Your task to perform on an android device: Go to Wikipedia Image 0: 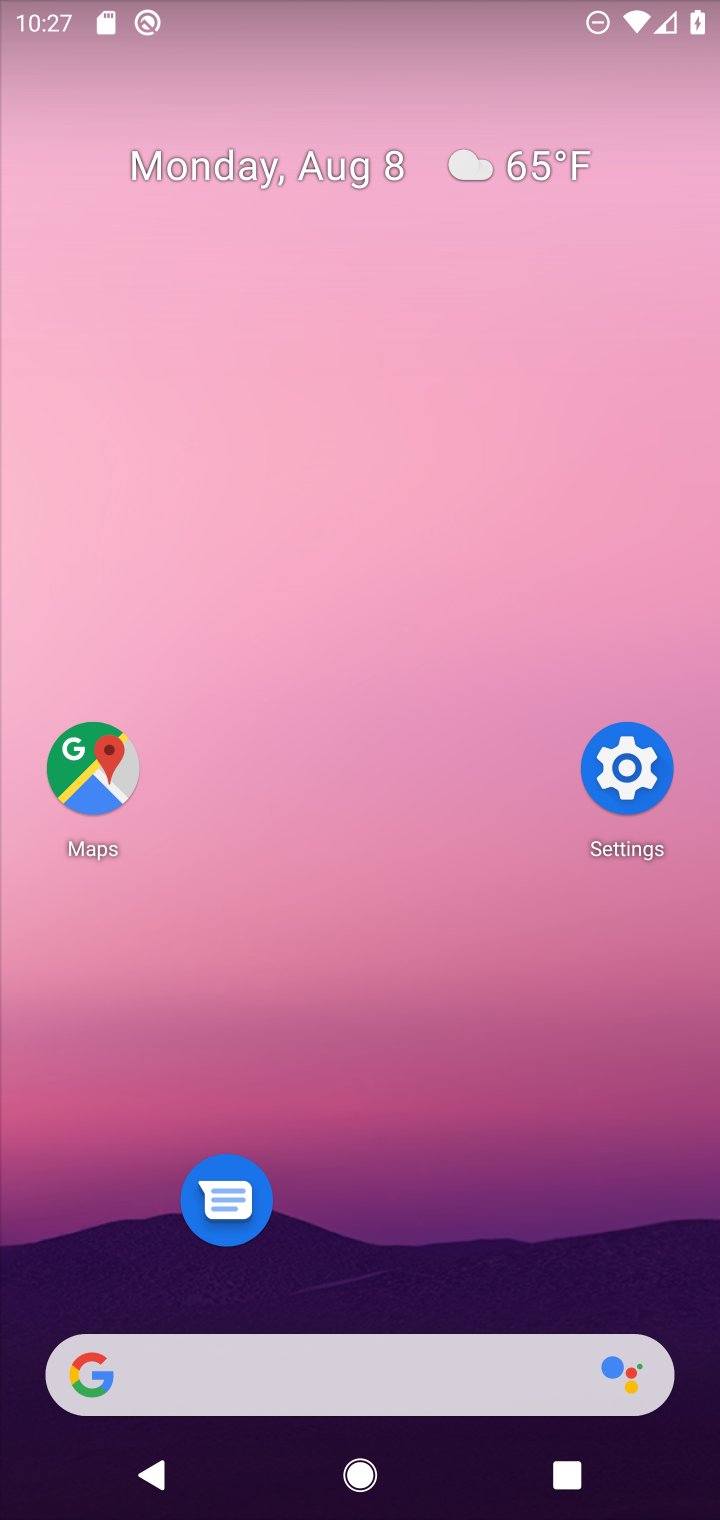
Step 0: drag from (322, 1352) to (526, 283)
Your task to perform on an android device: Go to Wikipedia Image 1: 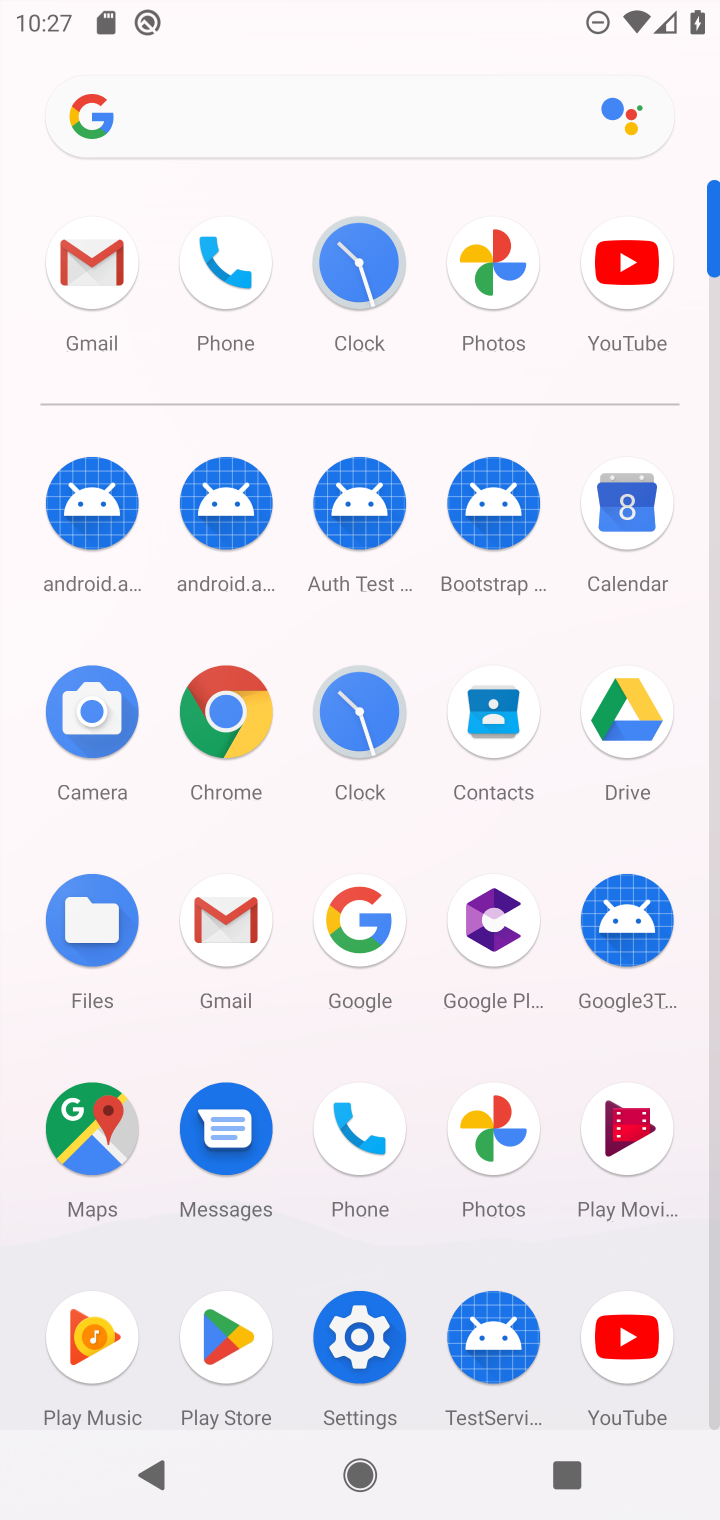
Step 1: drag from (228, 712) to (479, 1175)
Your task to perform on an android device: Go to Wikipedia Image 2: 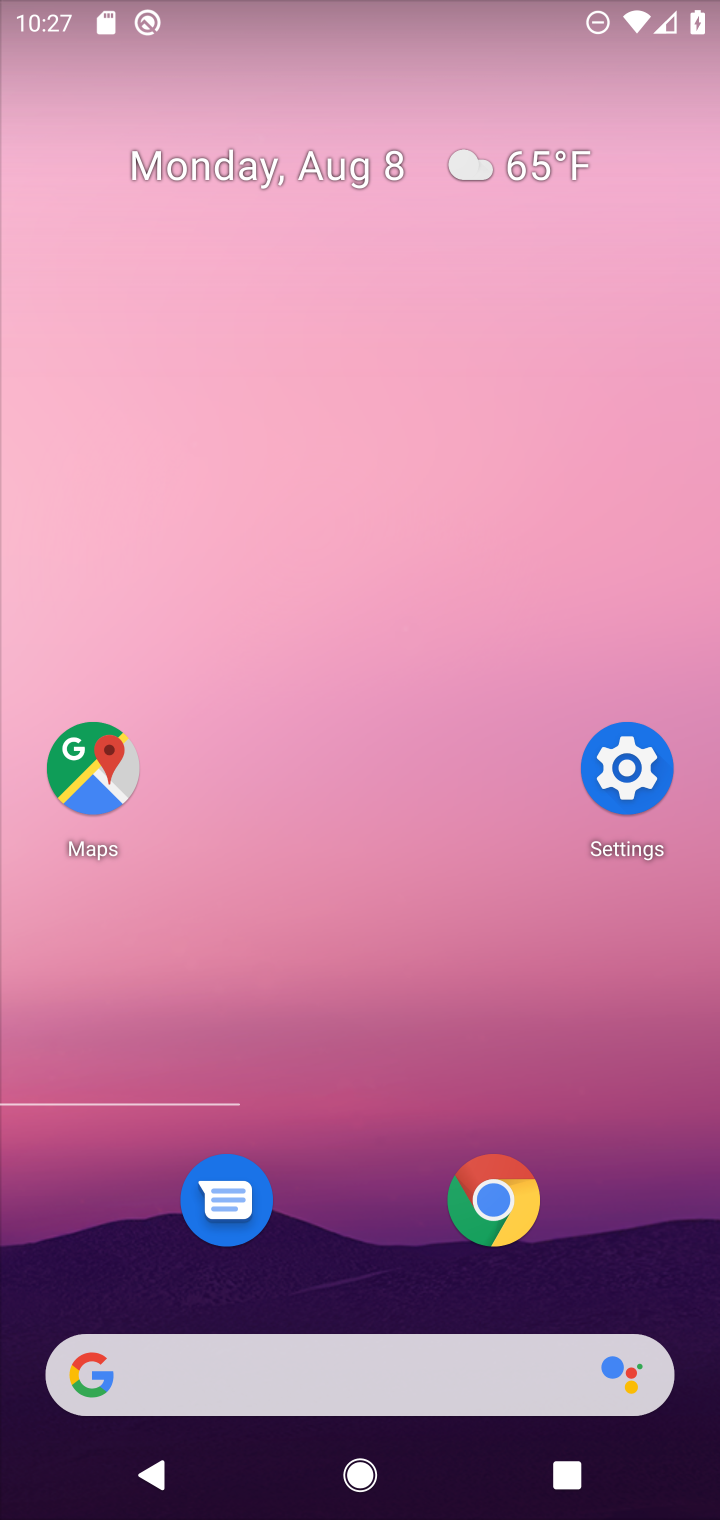
Step 2: click (493, 1191)
Your task to perform on an android device: Go to Wikipedia Image 3: 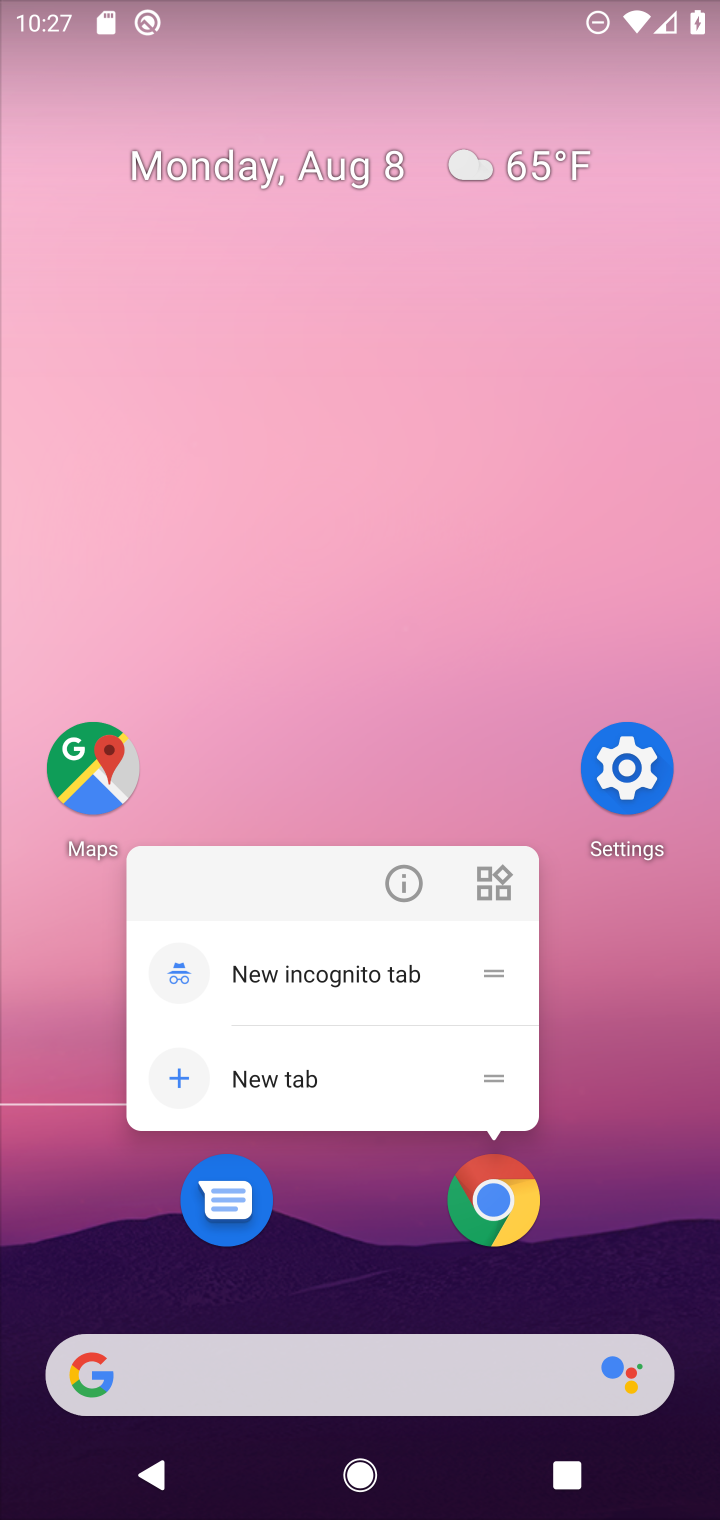
Step 3: click (493, 1199)
Your task to perform on an android device: Go to Wikipedia Image 4: 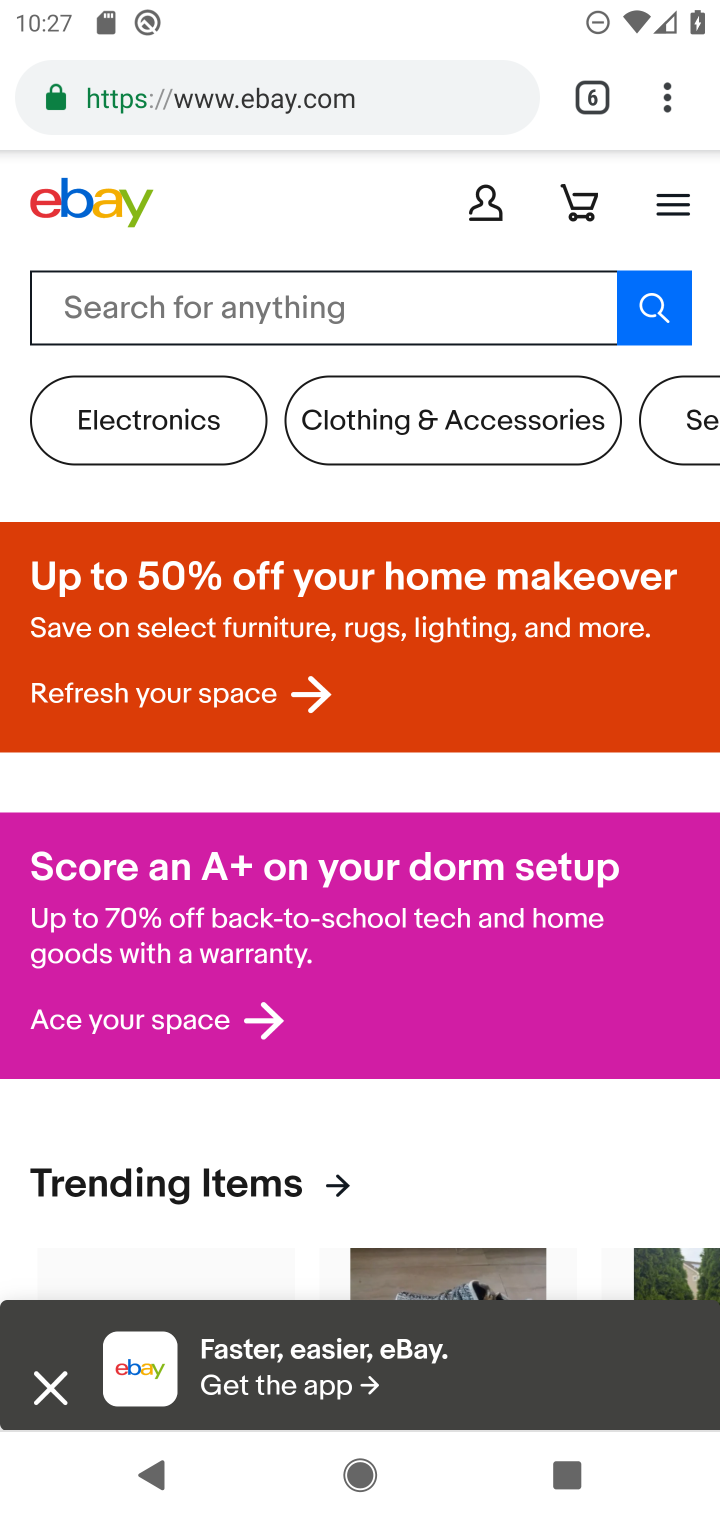
Step 4: drag from (658, 101) to (391, 311)
Your task to perform on an android device: Go to Wikipedia Image 5: 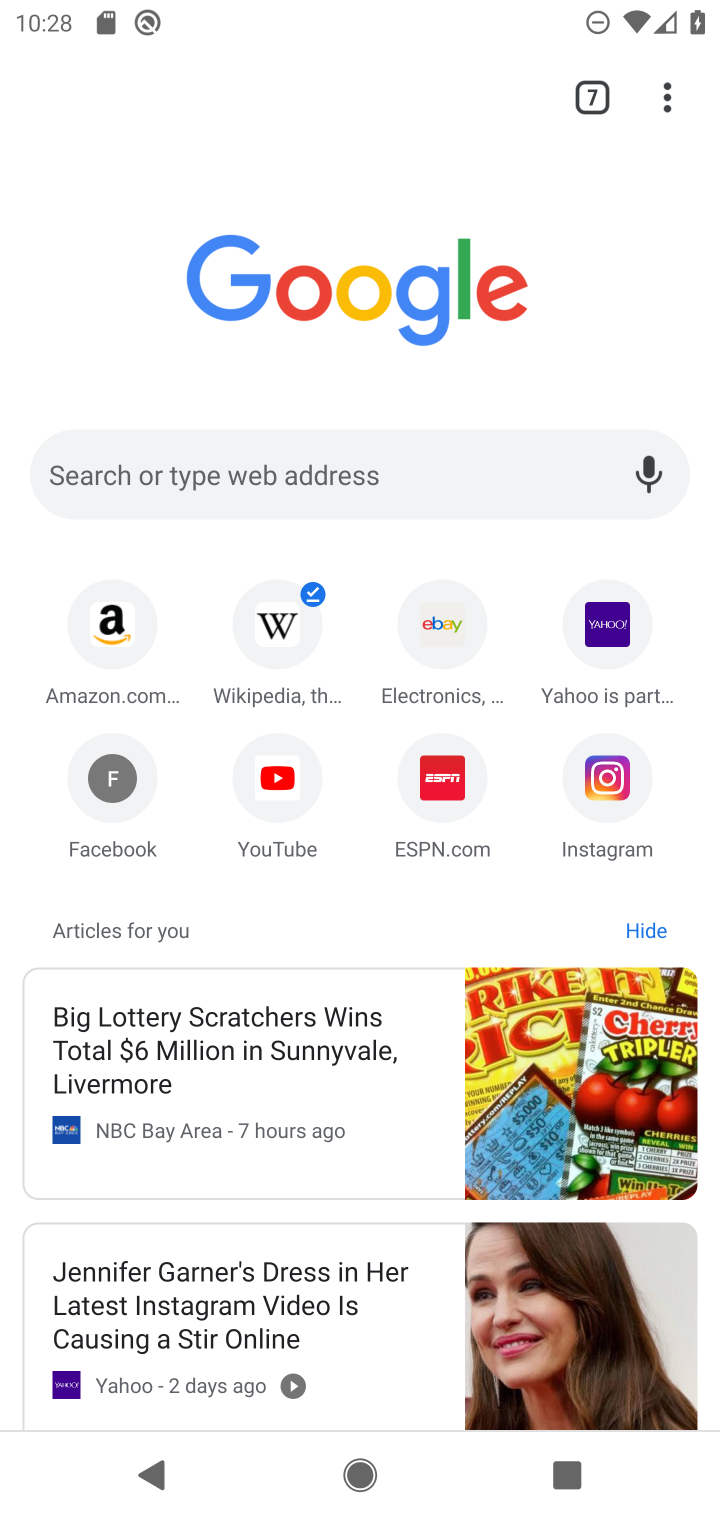
Step 5: click (278, 629)
Your task to perform on an android device: Go to Wikipedia Image 6: 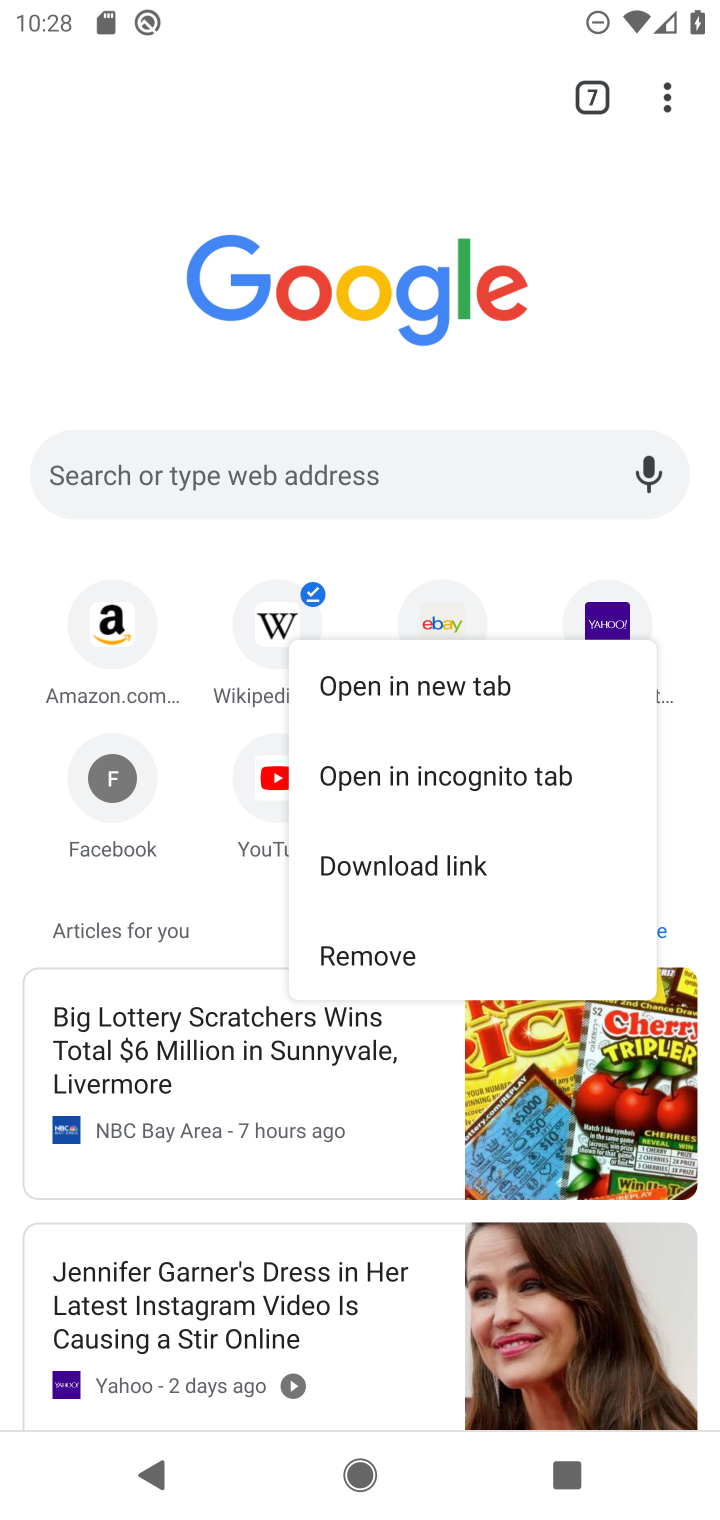
Step 6: click (278, 635)
Your task to perform on an android device: Go to Wikipedia Image 7: 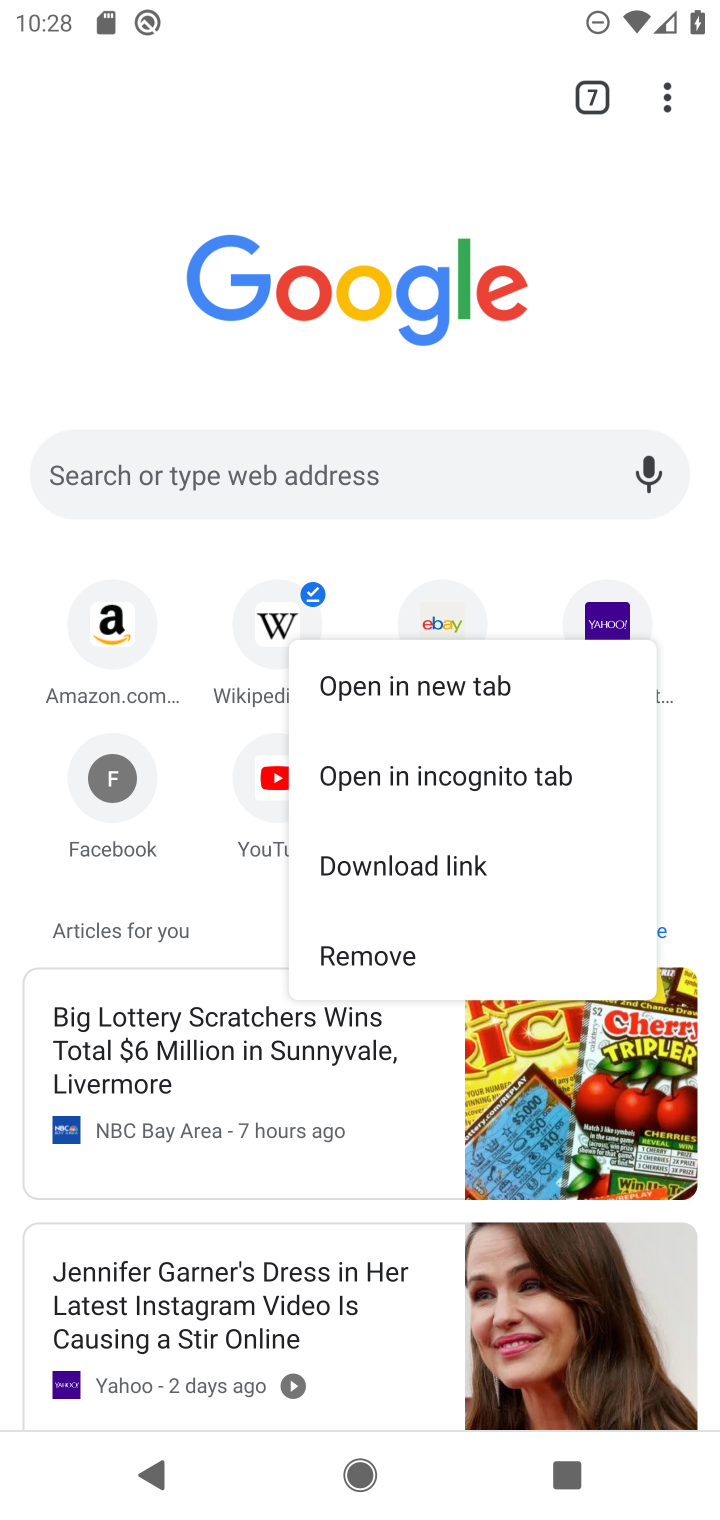
Step 7: click (278, 635)
Your task to perform on an android device: Go to Wikipedia Image 8: 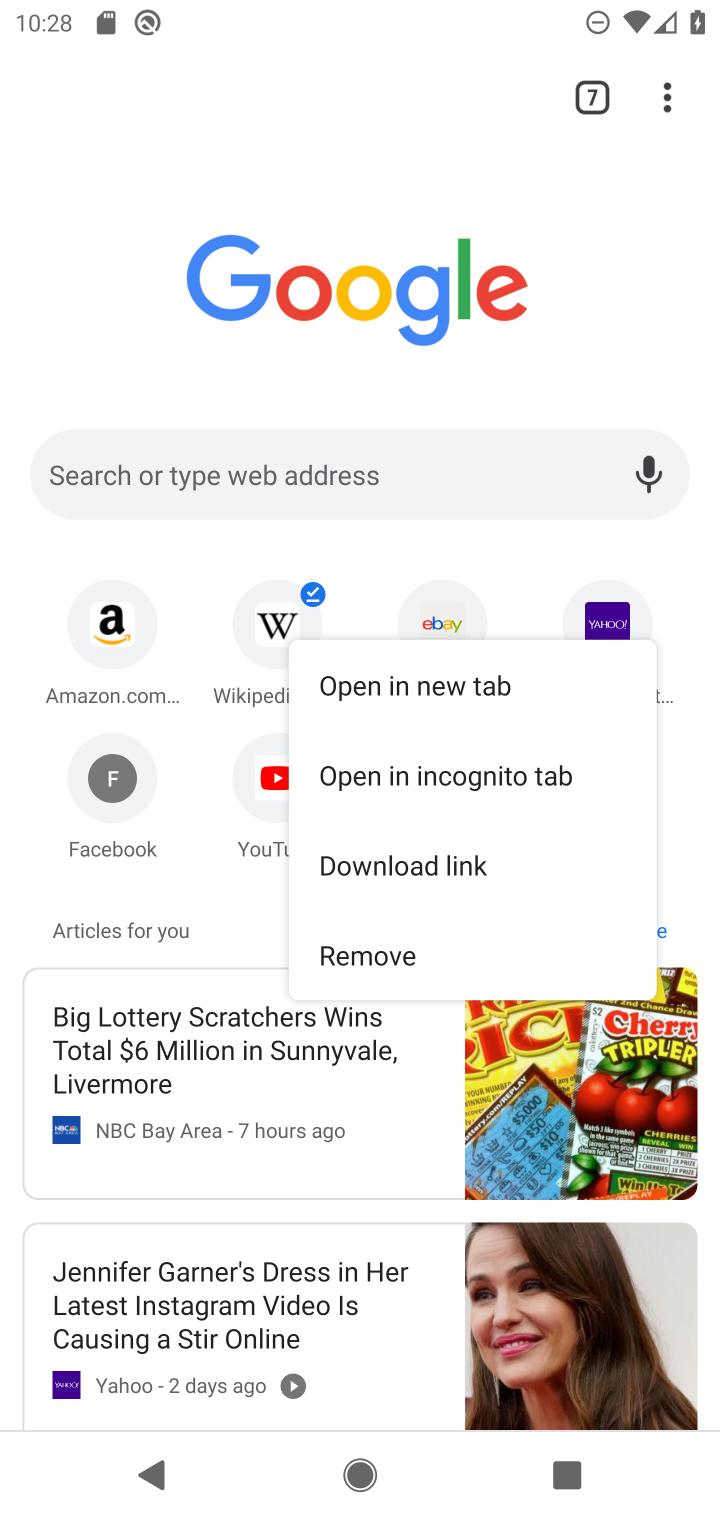
Step 8: click (265, 627)
Your task to perform on an android device: Go to Wikipedia Image 9: 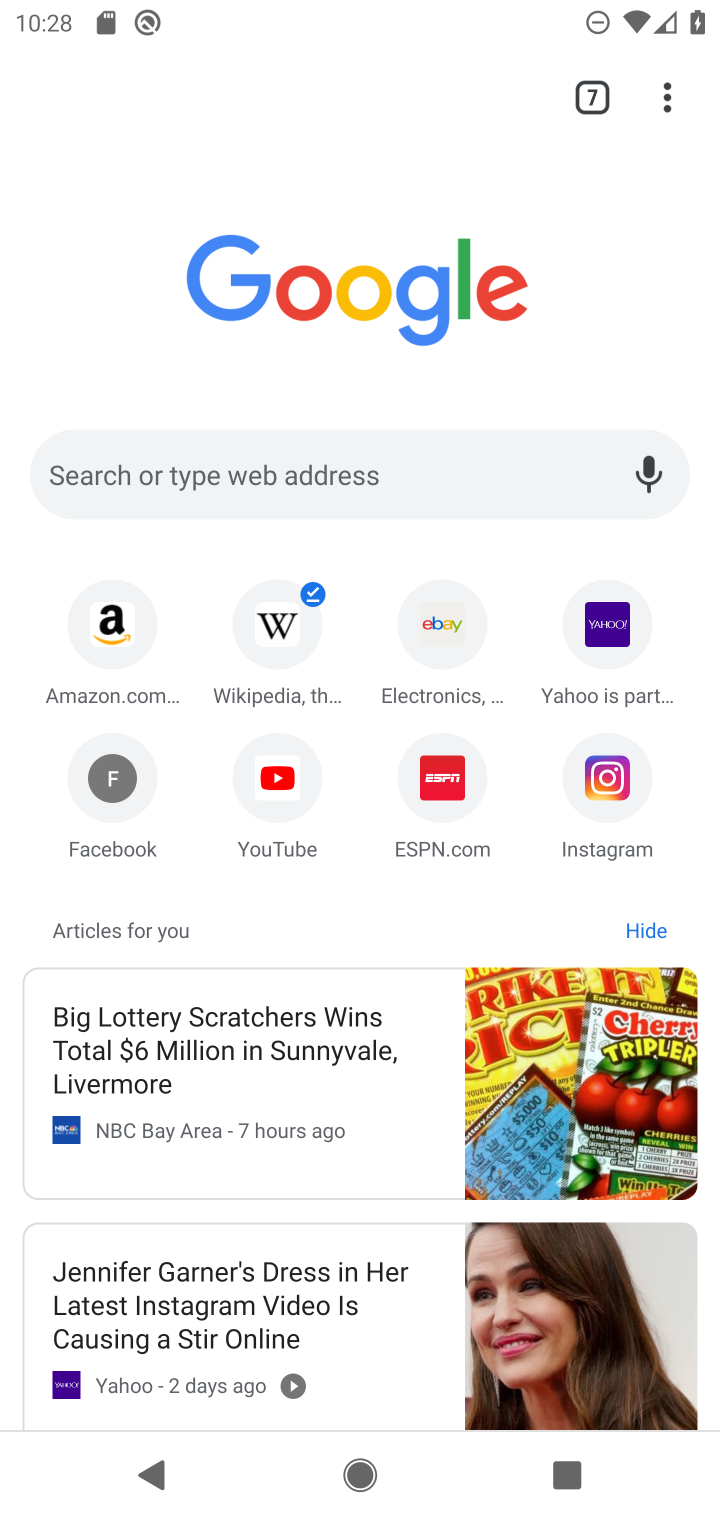
Step 9: click (265, 625)
Your task to perform on an android device: Go to Wikipedia Image 10: 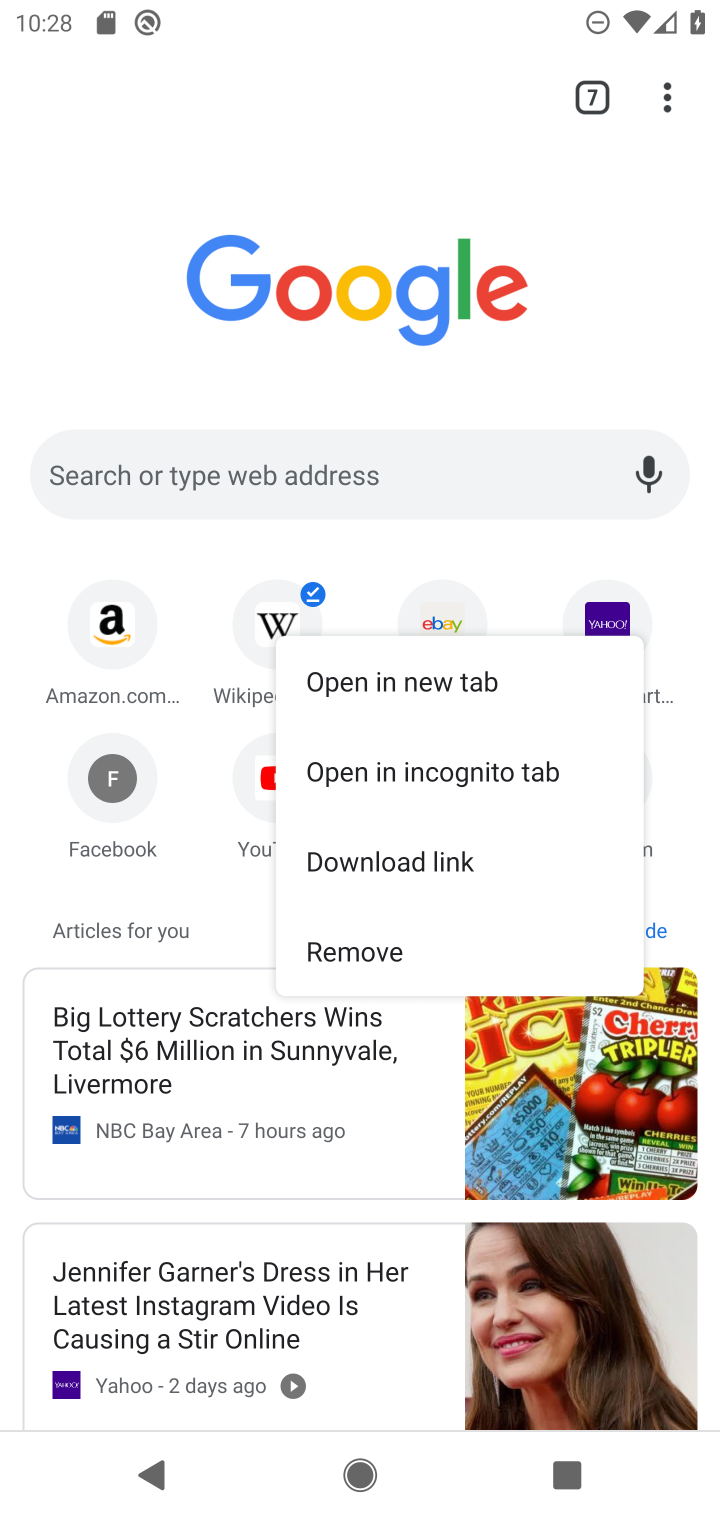
Step 10: click (271, 618)
Your task to perform on an android device: Go to Wikipedia Image 11: 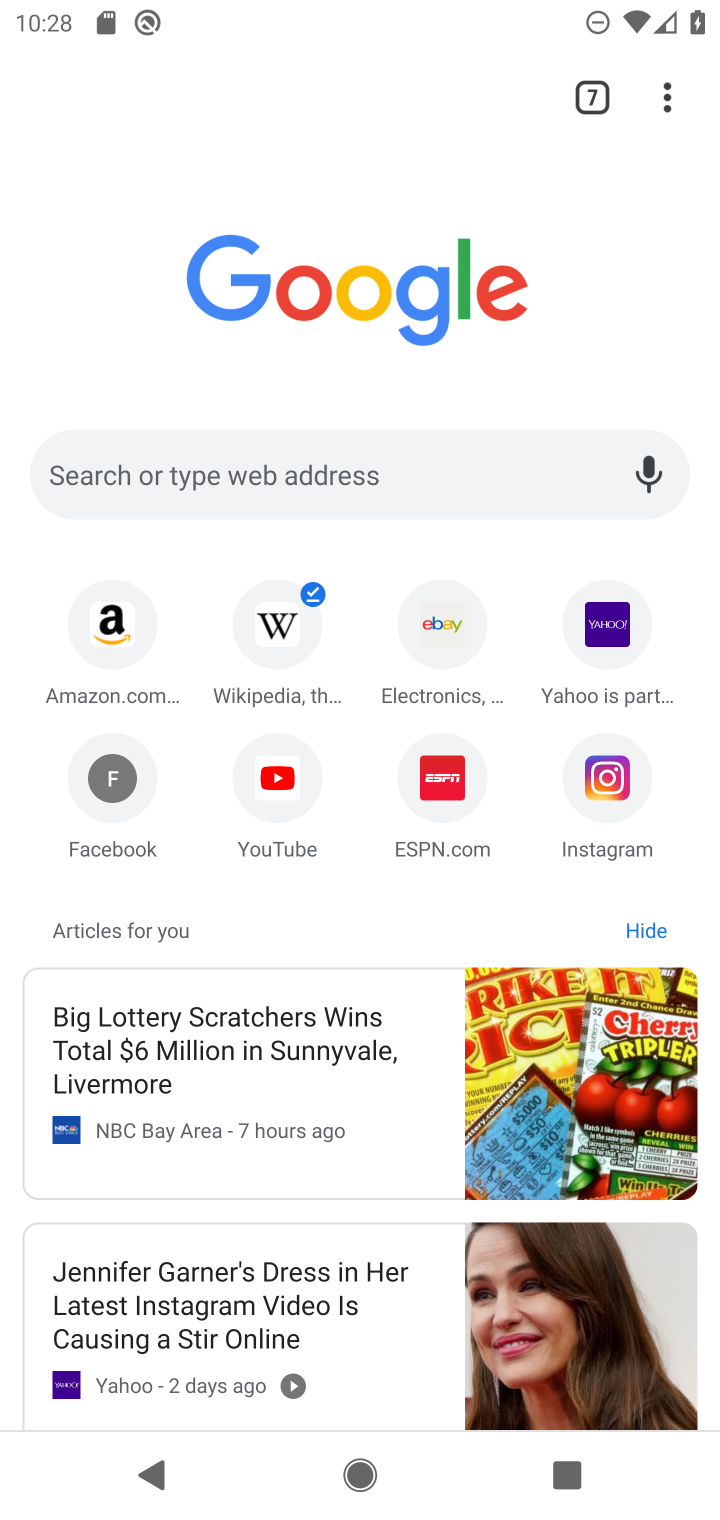
Step 11: click (271, 623)
Your task to perform on an android device: Go to Wikipedia Image 12: 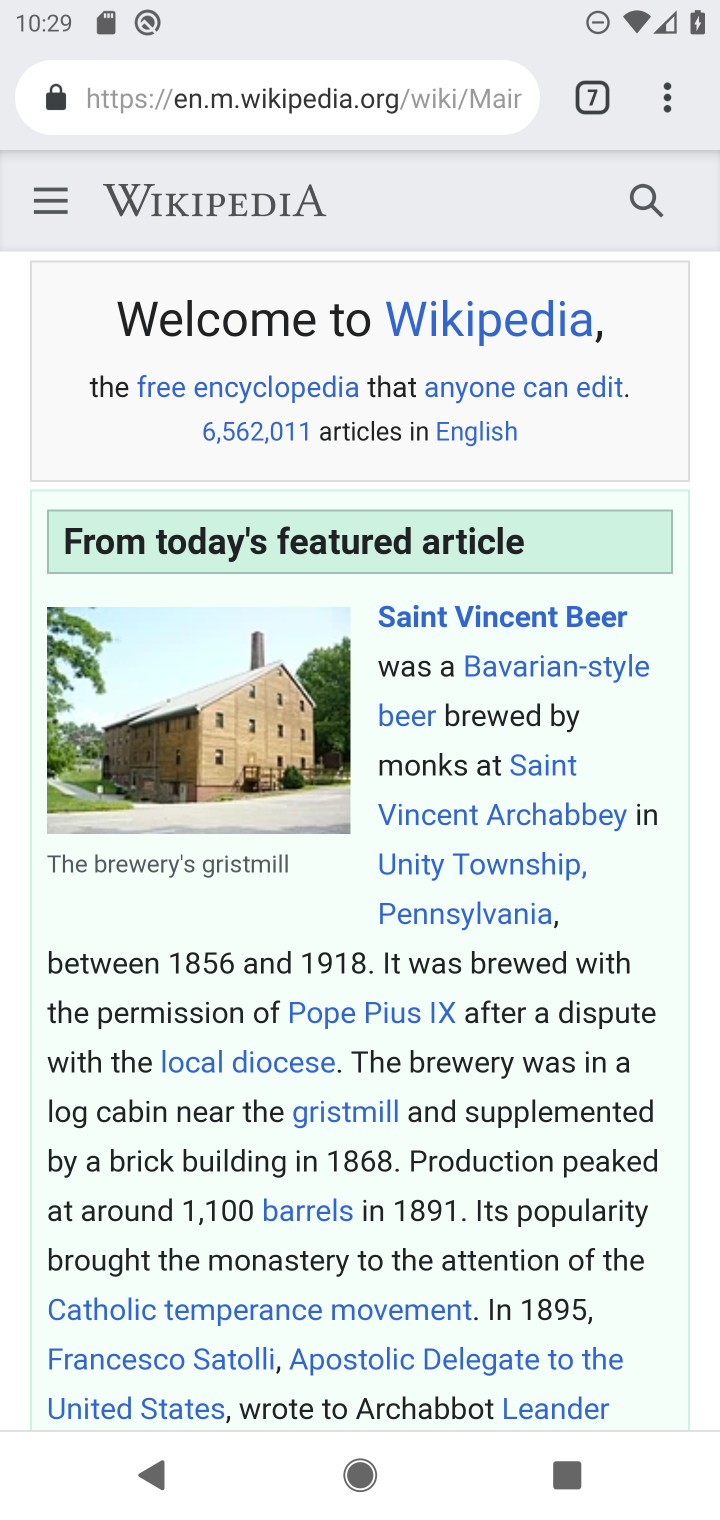
Step 12: task complete